Your task to perform on an android device: toggle notification dots Image 0: 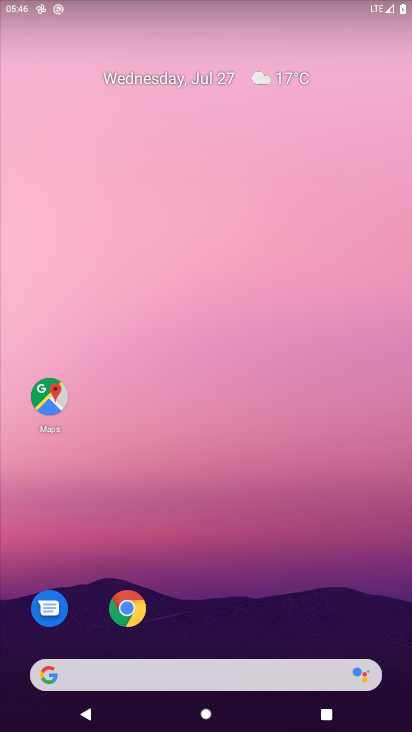
Step 0: press home button
Your task to perform on an android device: toggle notification dots Image 1: 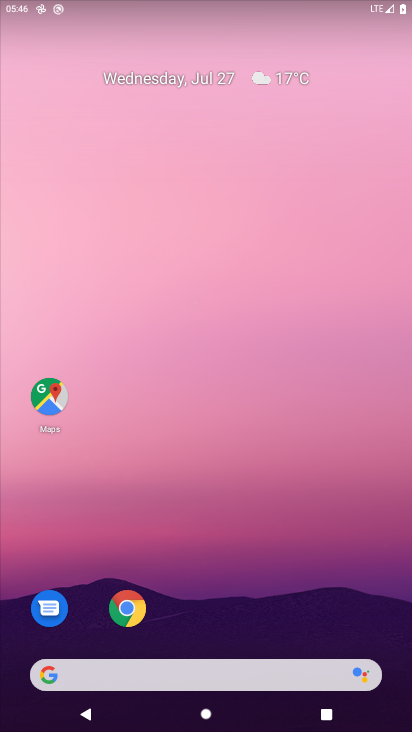
Step 1: drag from (210, 632) to (299, 85)
Your task to perform on an android device: toggle notification dots Image 2: 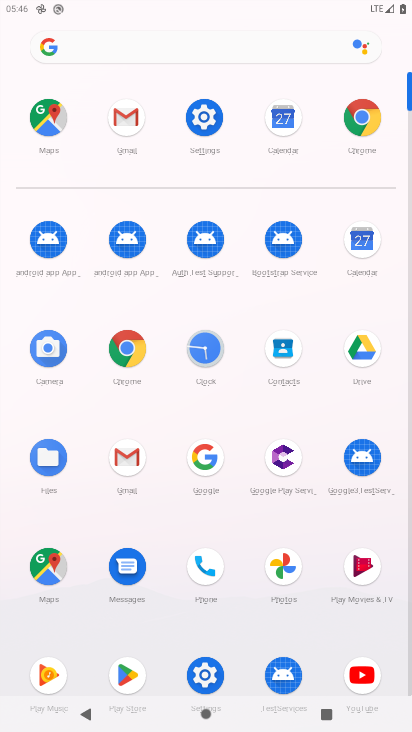
Step 2: click (207, 114)
Your task to perform on an android device: toggle notification dots Image 3: 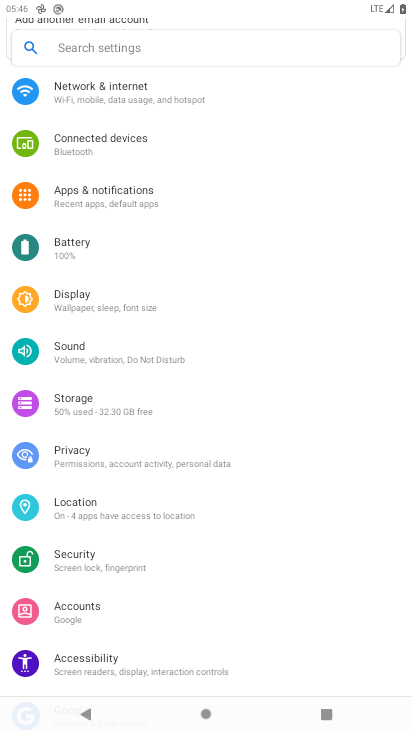
Step 3: click (94, 192)
Your task to perform on an android device: toggle notification dots Image 4: 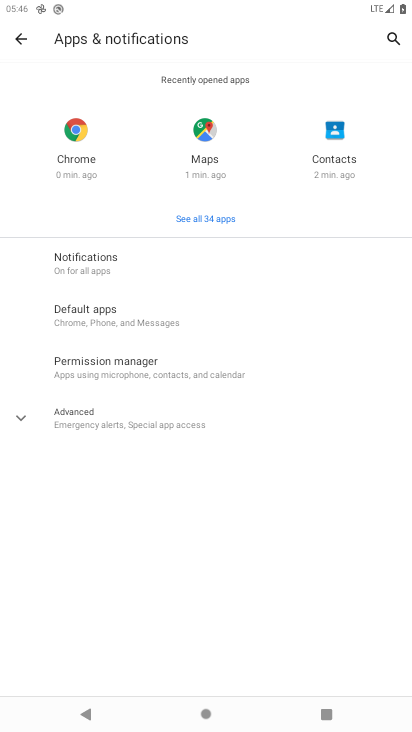
Step 4: click (82, 262)
Your task to perform on an android device: toggle notification dots Image 5: 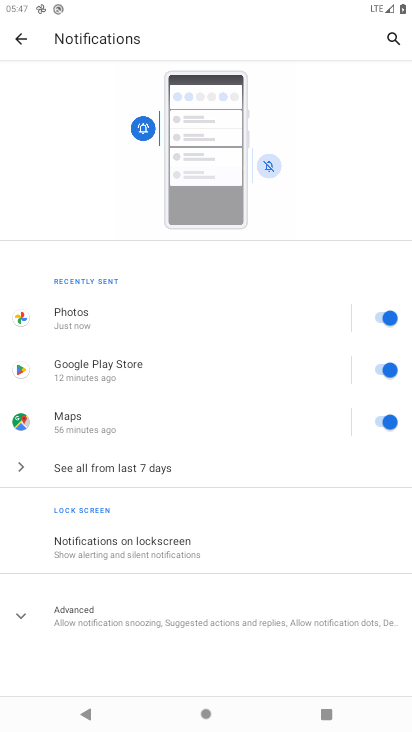
Step 5: click (71, 617)
Your task to perform on an android device: toggle notification dots Image 6: 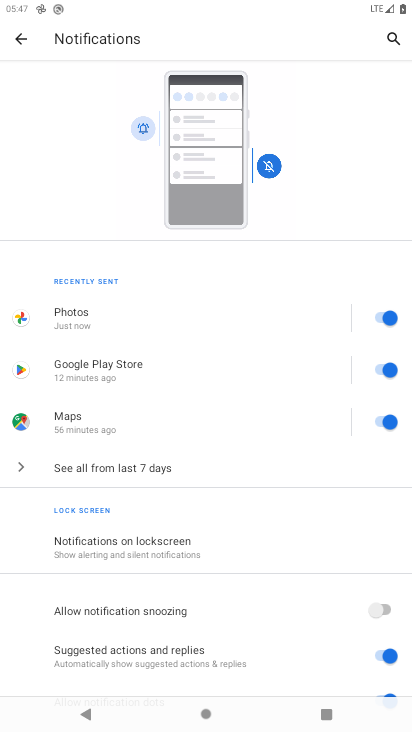
Step 6: drag from (262, 621) to (284, 156)
Your task to perform on an android device: toggle notification dots Image 7: 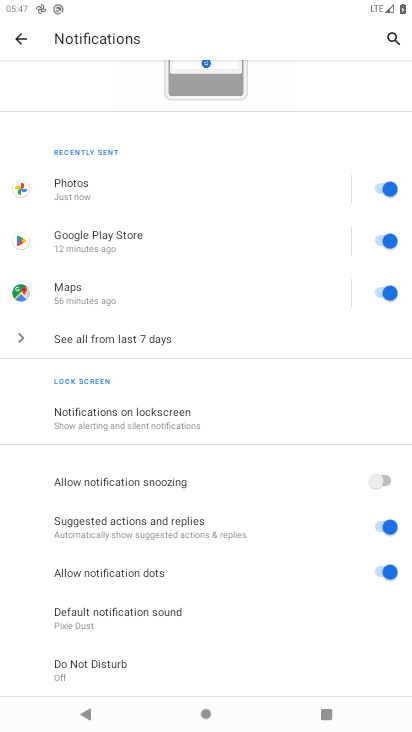
Step 7: click (386, 569)
Your task to perform on an android device: toggle notification dots Image 8: 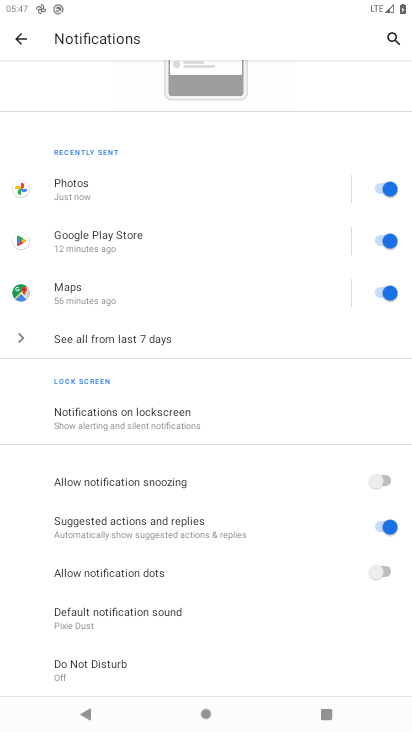
Step 8: task complete